Your task to perform on an android device: turn notification dots on Image 0: 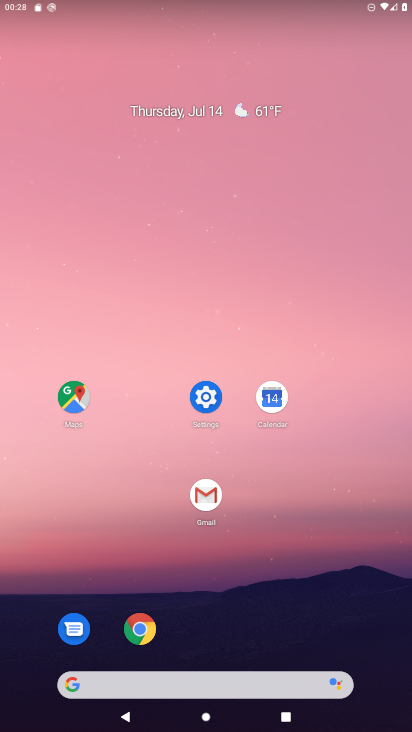
Step 0: drag from (386, 607) to (397, 237)
Your task to perform on an android device: turn notification dots on Image 1: 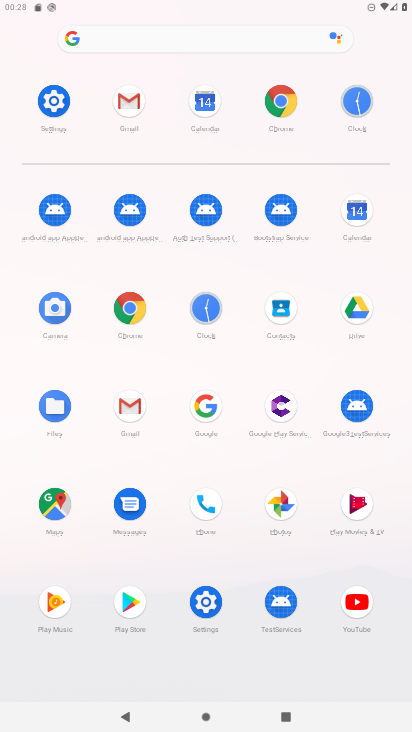
Step 1: click (51, 107)
Your task to perform on an android device: turn notification dots on Image 2: 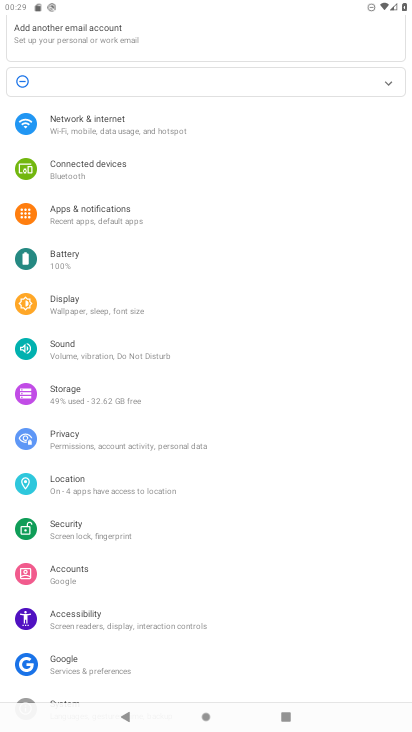
Step 2: click (81, 204)
Your task to perform on an android device: turn notification dots on Image 3: 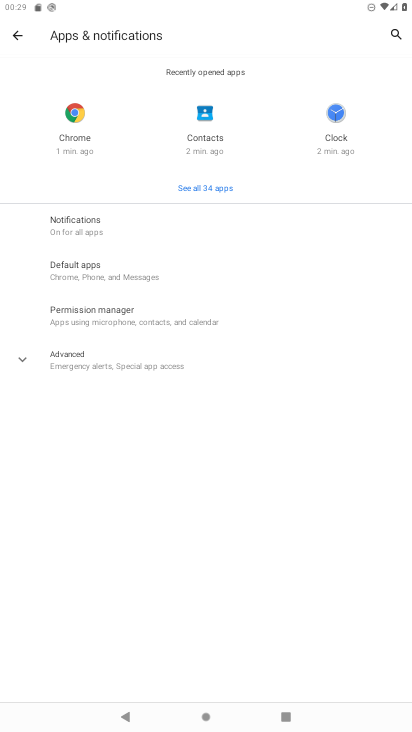
Step 3: click (57, 220)
Your task to perform on an android device: turn notification dots on Image 4: 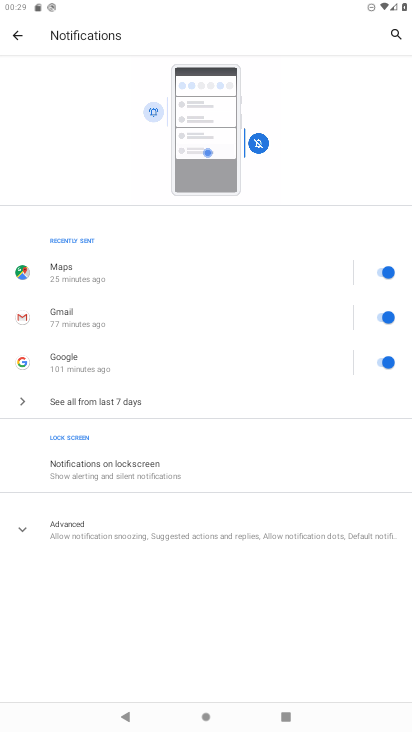
Step 4: click (29, 530)
Your task to perform on an android device: turn notification dots on Image 5: 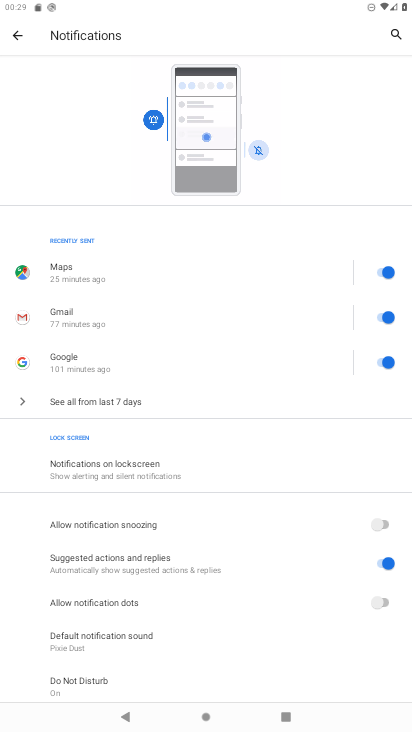
Step 5: click (388, 602)
Your task to perform on an android device: turn notification dots on Image 6: 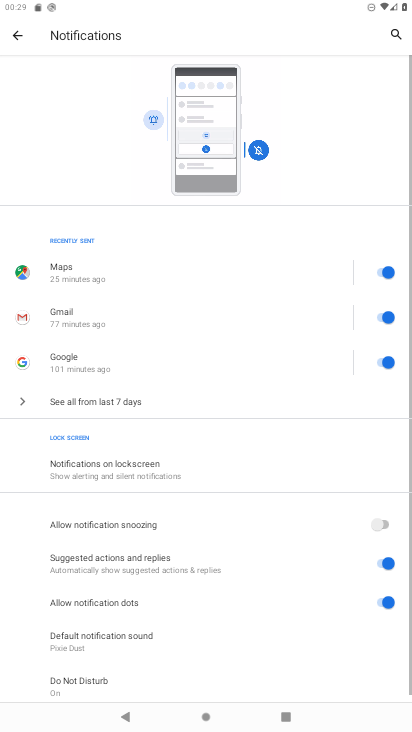
Step 6: task complete